Your task to perform on an android device: change keyboard looks Image 0: 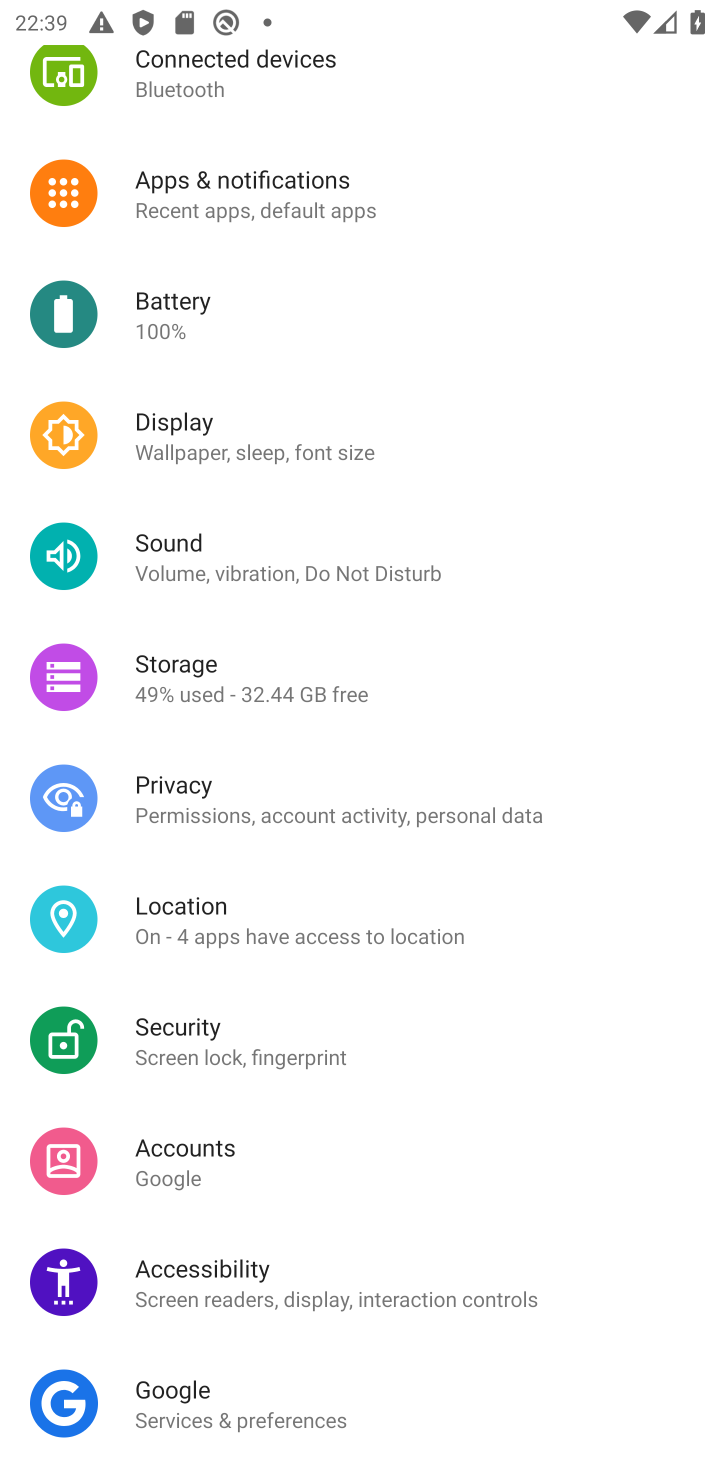
Step 0: press home button
Your task to perform on an android device: change keyboard looks Image 1: 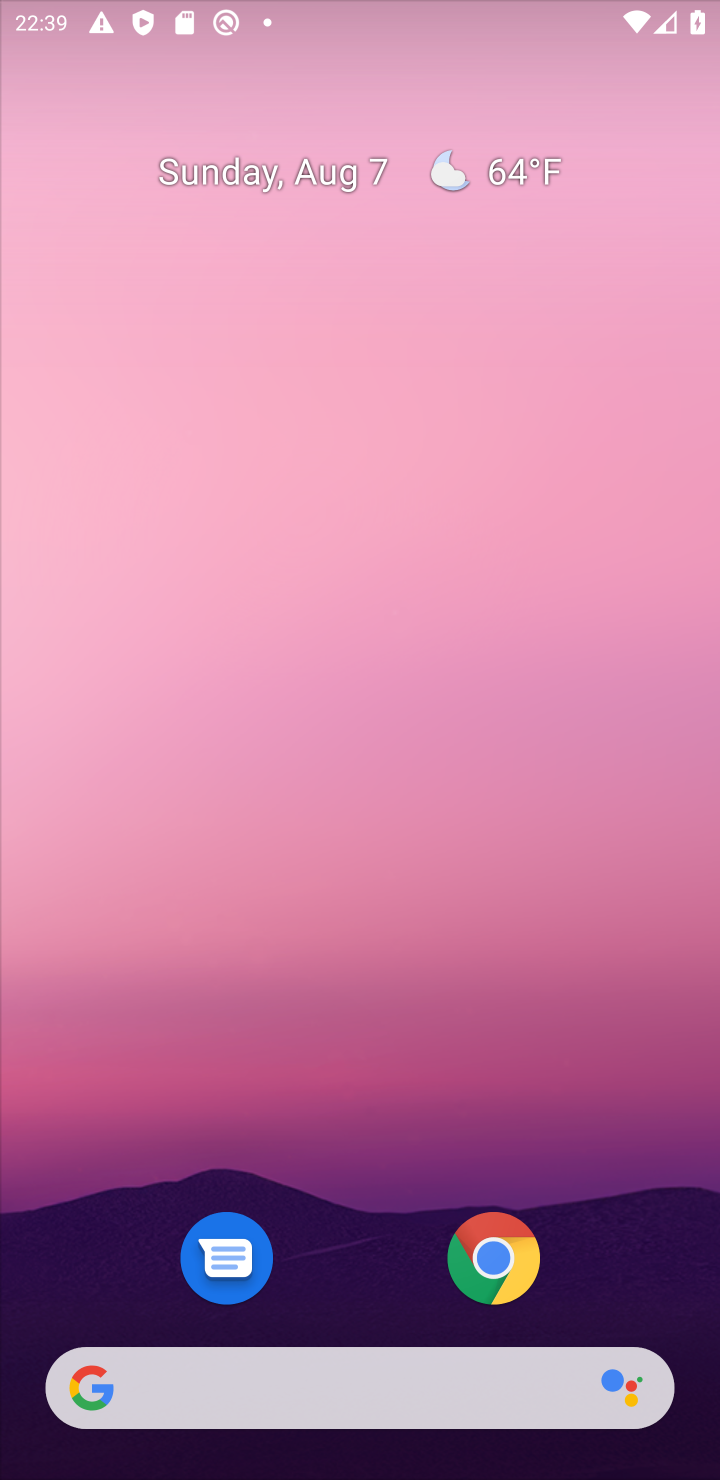
Step 1: drag from (369, 1265) to (362, 99)
Your task to perform on an android device: change keyboard looks Image 2: 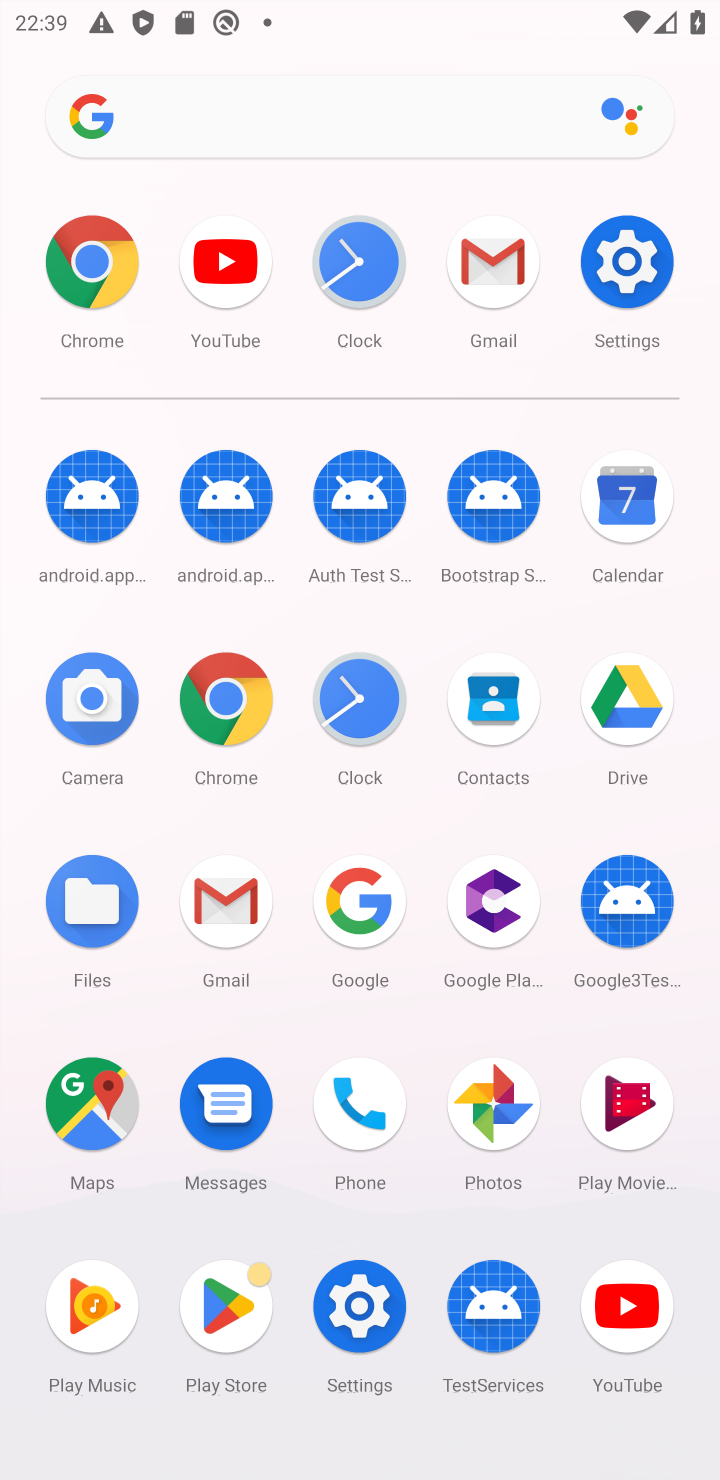
Step 2: click (382, 1305)
Your task to perform on an android device: change keyboard looks Image 3: 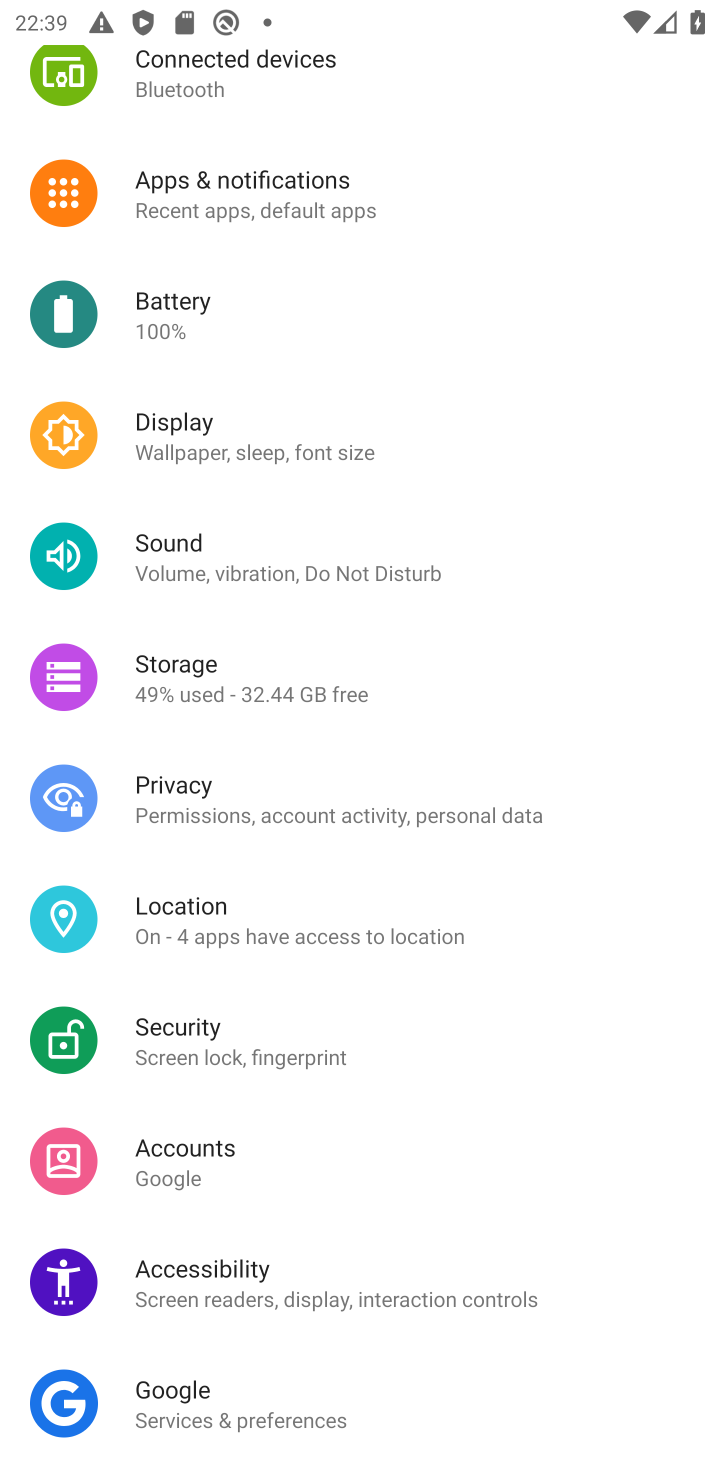
Step 3: drag from (345, 1356) to (349, 1132)
Your task to perform on an android device: change keyboard looks Image 4: 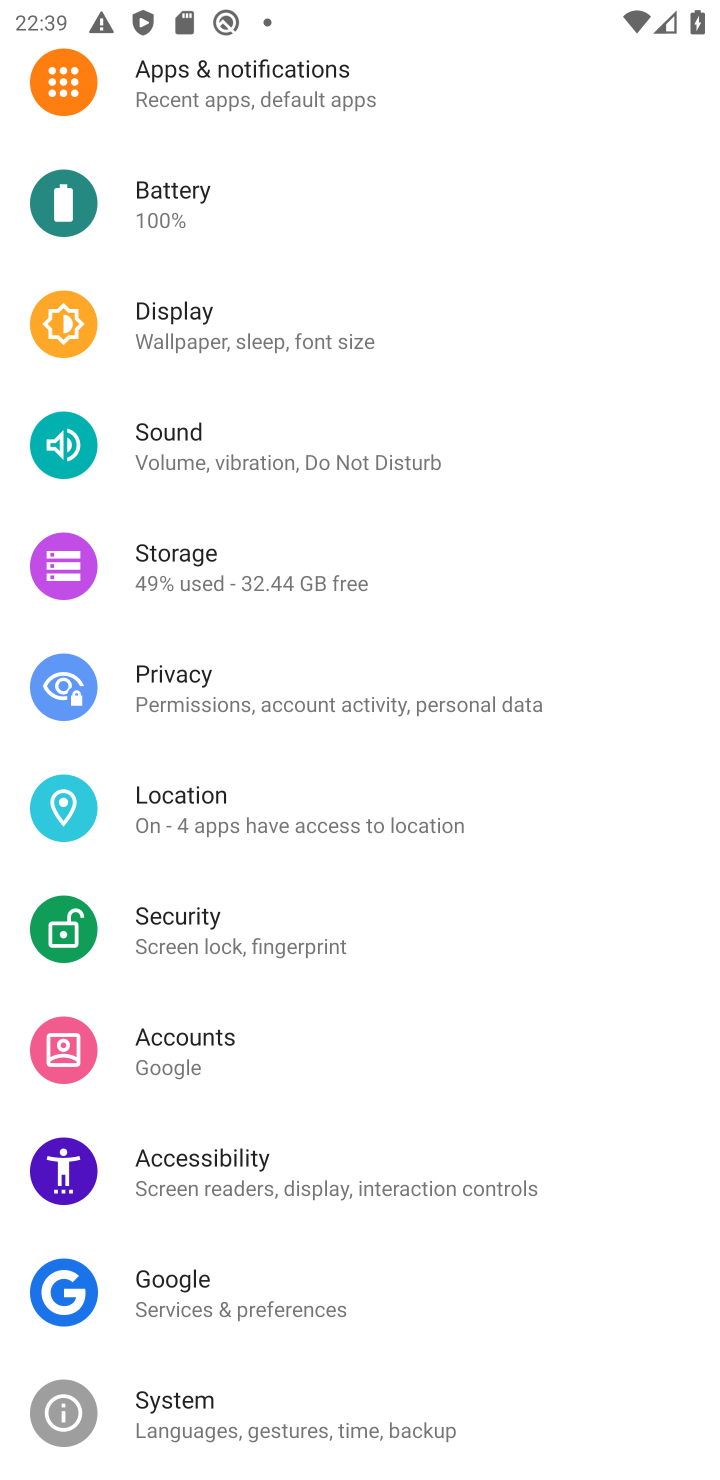
Step 4: click (219, 1404)
Your task to perform on an android device: change keyboard looks Image 5: 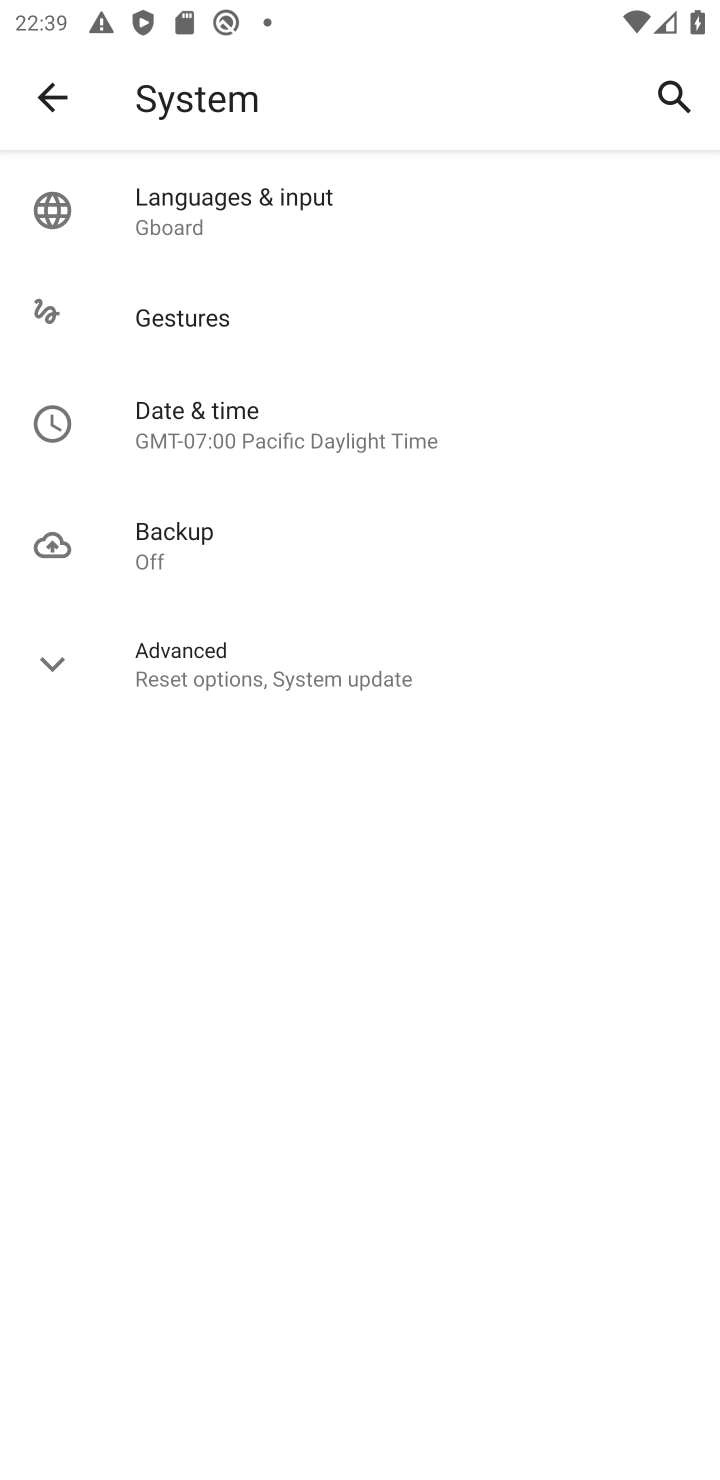
Step 5: click (140, 216)
Your task to perform on an android device: change keyboard looks Image 6: 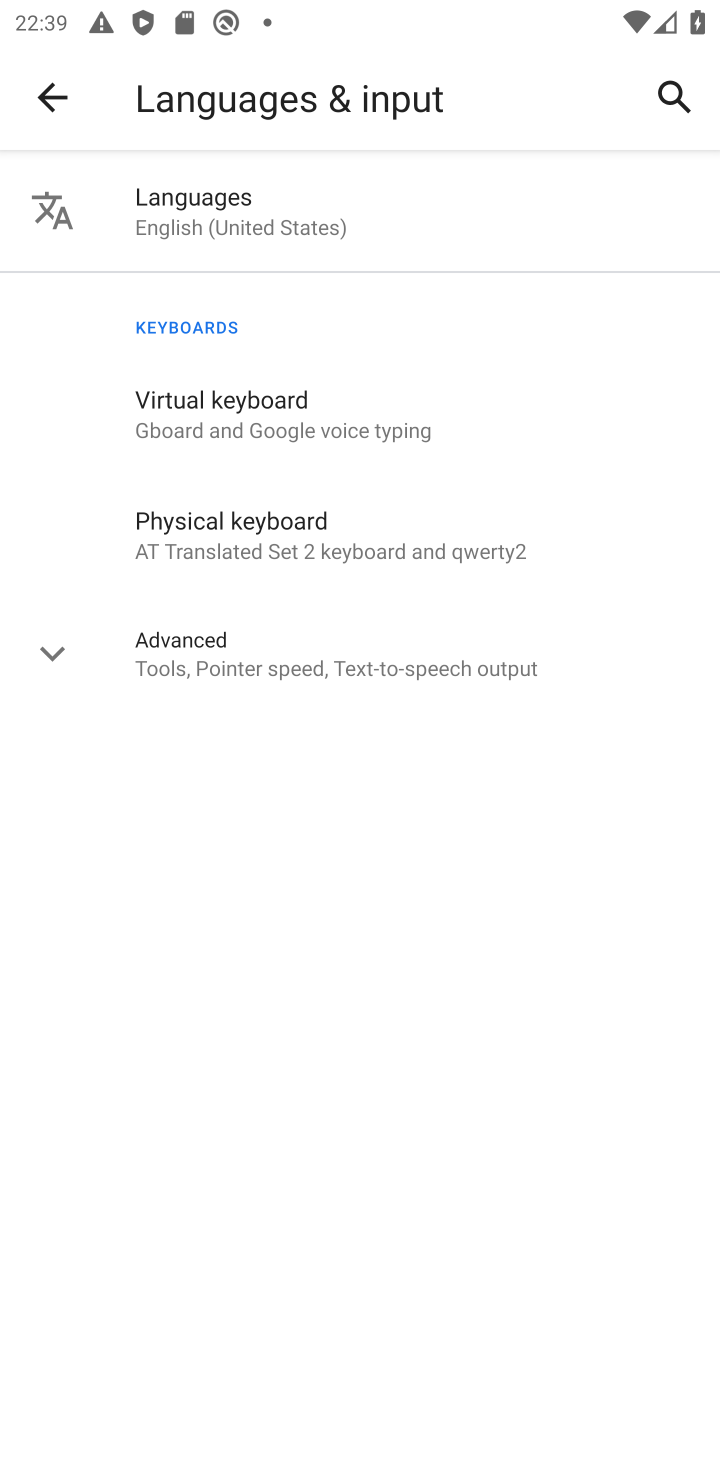
Step 6: click (183, 440)
Your task to perform on an android device: change keyboard looks Image 7: 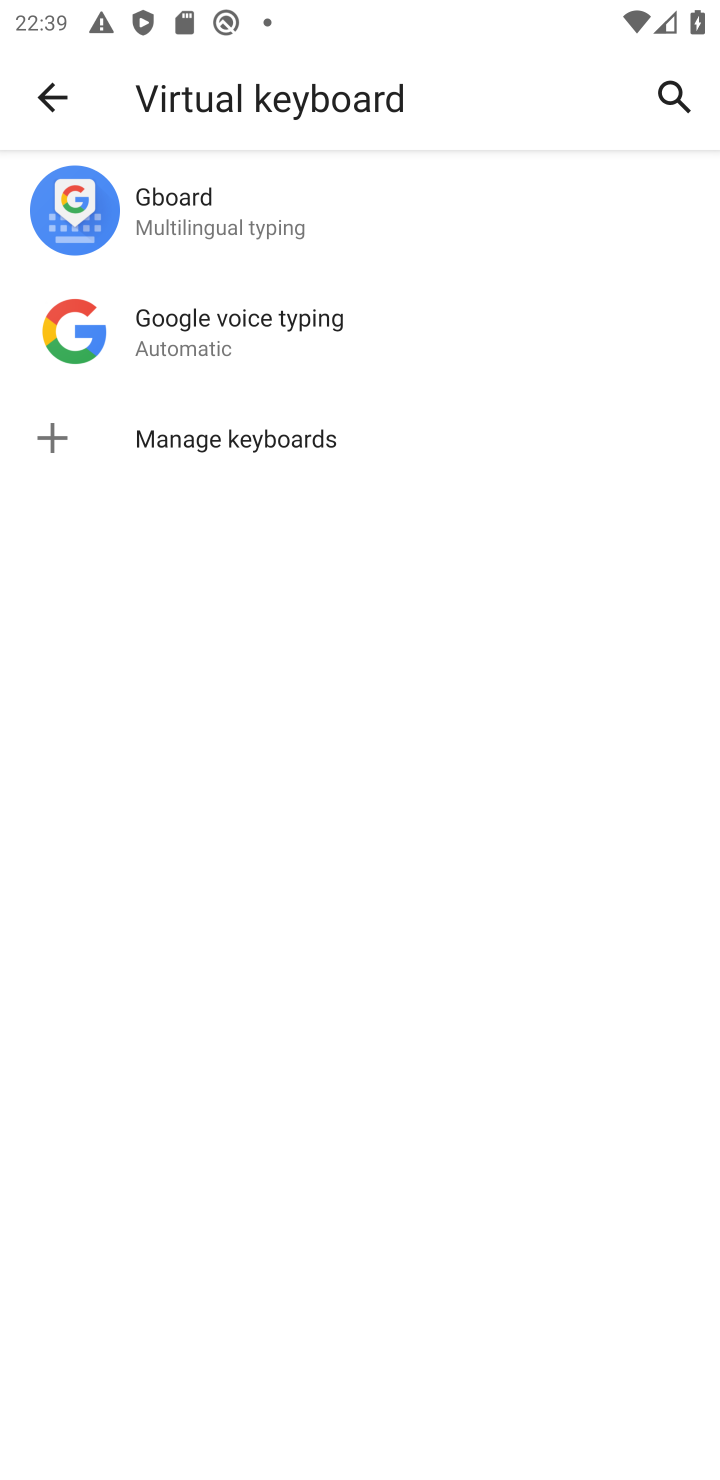
Step 7: click (217, 217)
Your task to perform on an android device: change keyboard looks Image 8: 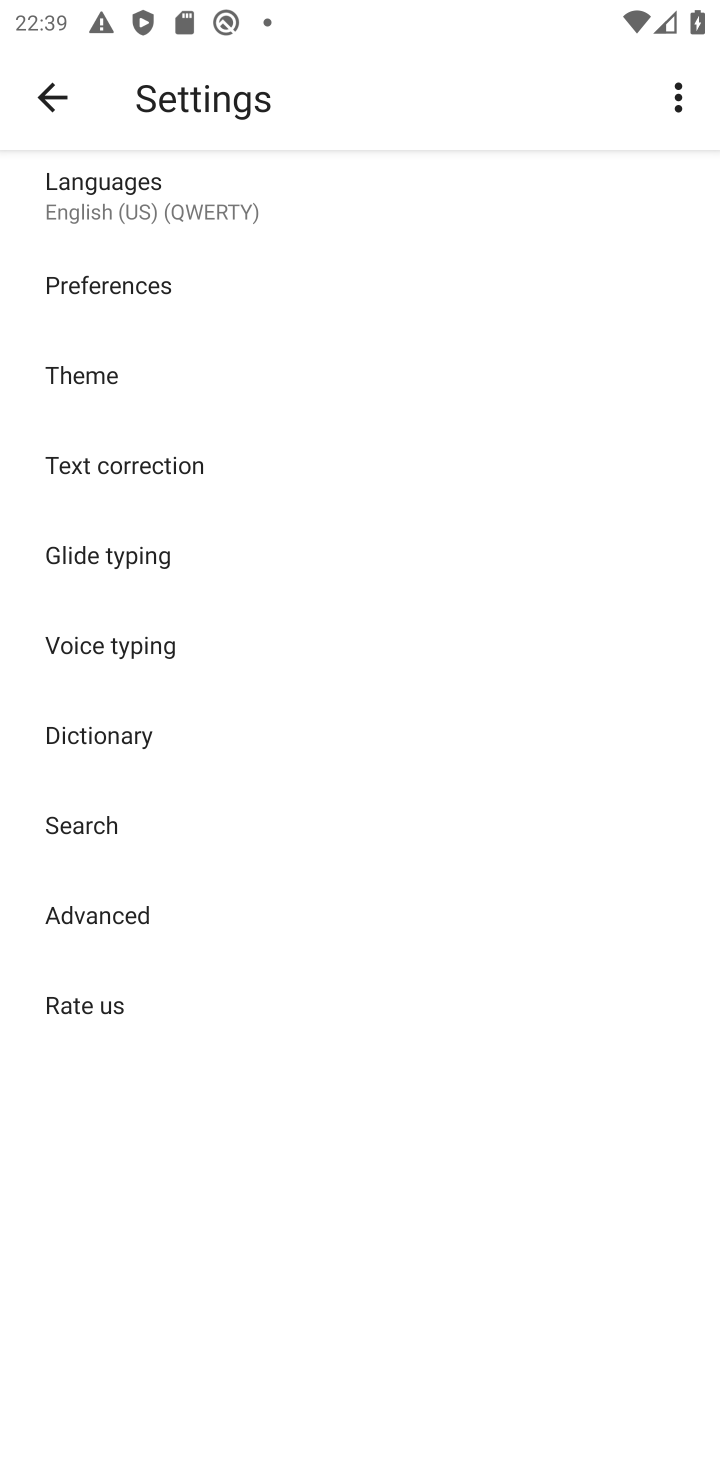
Step 8: click (226, 333)
Your task to perform on an android device: change keyboard looks Image 9: 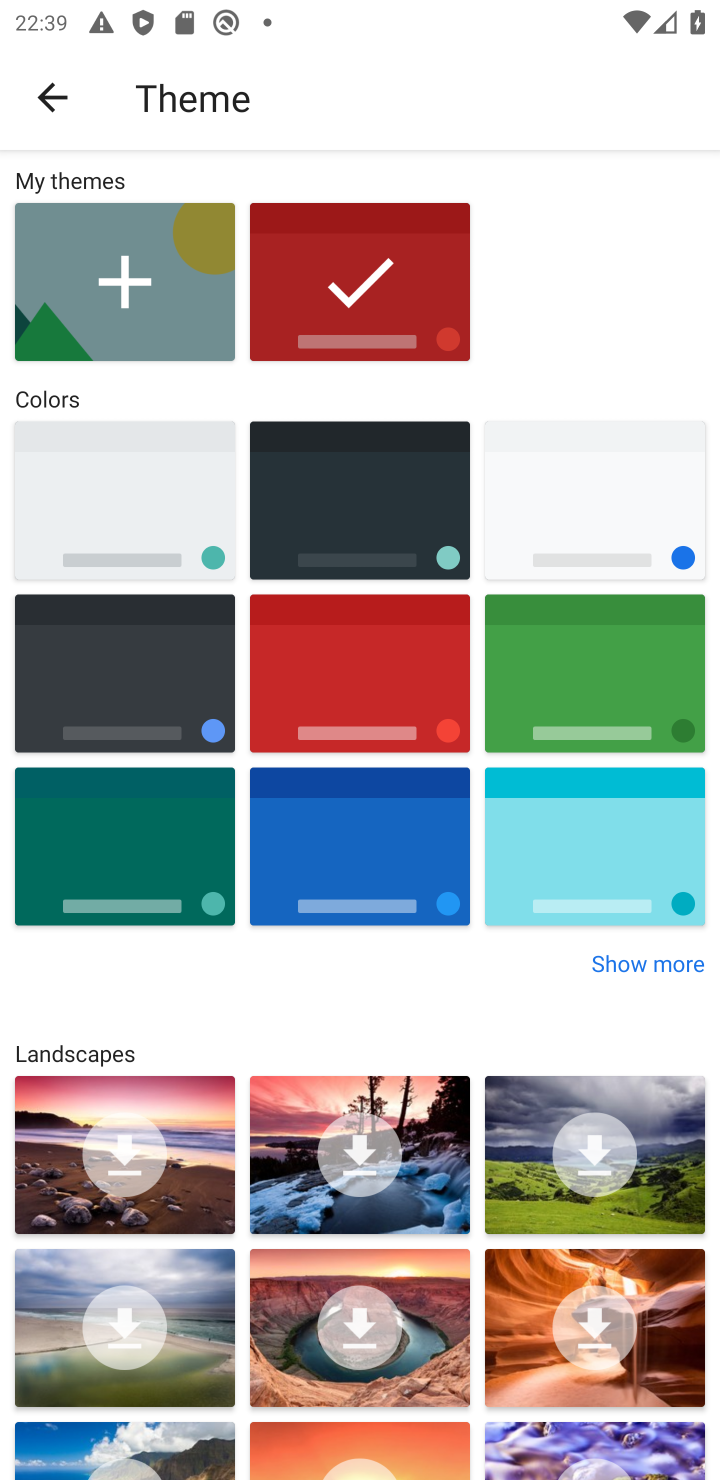
Step 9: click (269, 682)
Your task to perform on an android device: change keyboard looks Image 10: 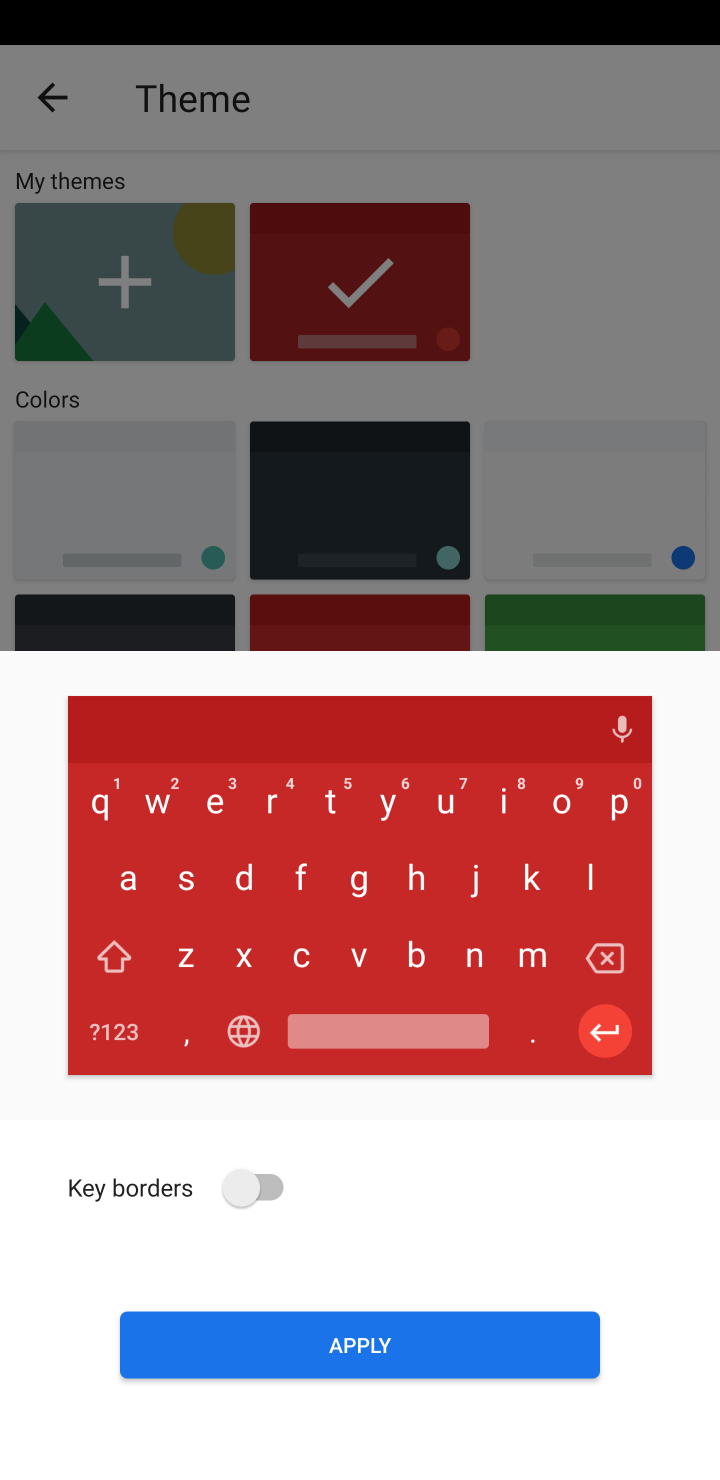
Step 10: click (423, 1329)
Your task to perform on an android device: change keyboard looks Image 11: 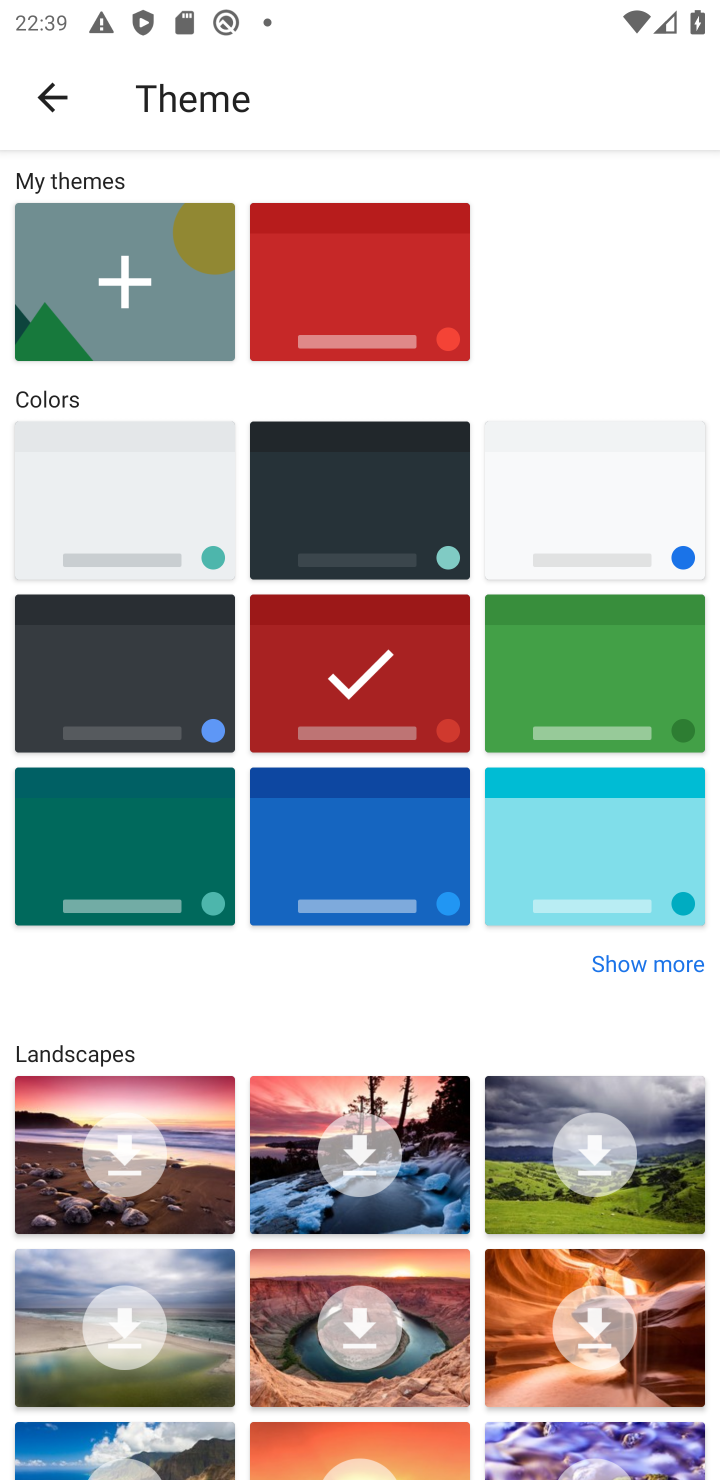
Step 11: task complete